Your task to perform on an android device: Go to accessibility settings Image 0: 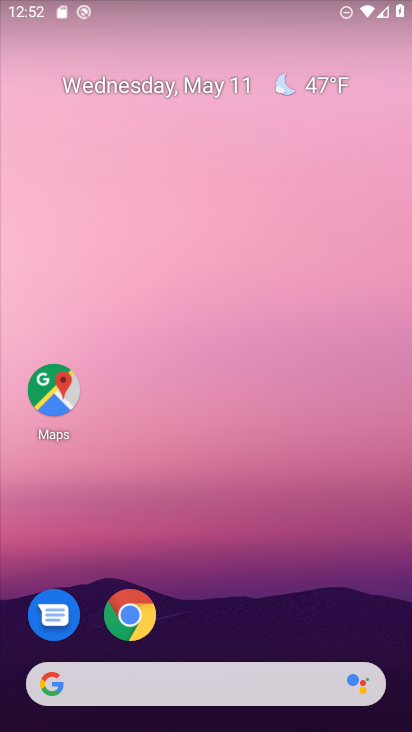
Step 0: drag from (294, 566) to (401, 92)
Your task to perform on an android device: Go to accessibility settings Image 1: 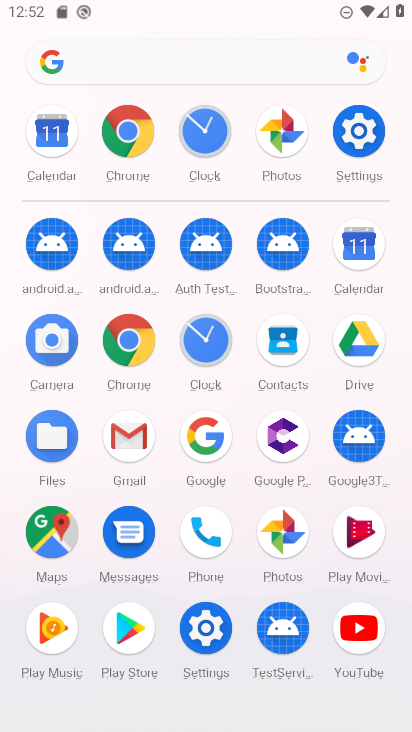
Step 1: click (369, 130)
Your task to perform on an android device: Go to accessibility settings Image 2: 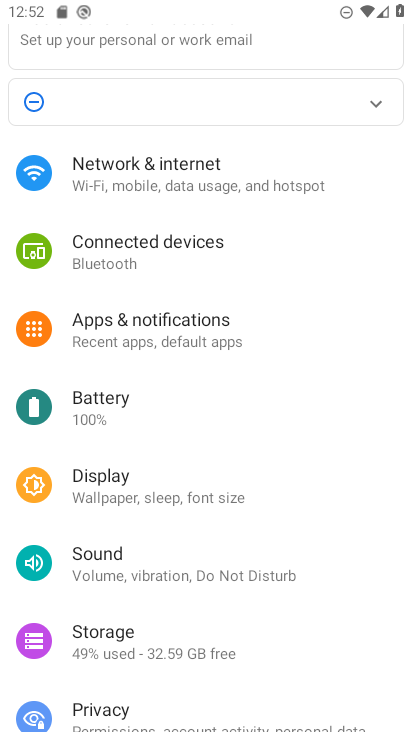
Step 2: drag from (175, 611) to (145, 237)
Your task to perform on an android device: Go to accessibility settings Image 3: 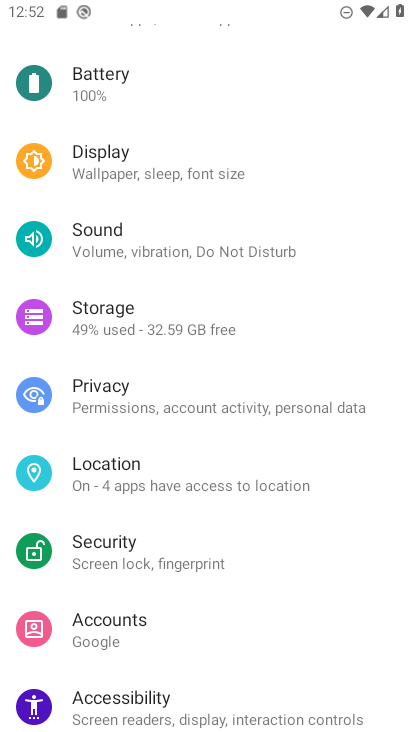
Step 3: drag from (110, 626) to (102, 174)
Your task to perform on an android device: Go to accessibility settings Image 4: 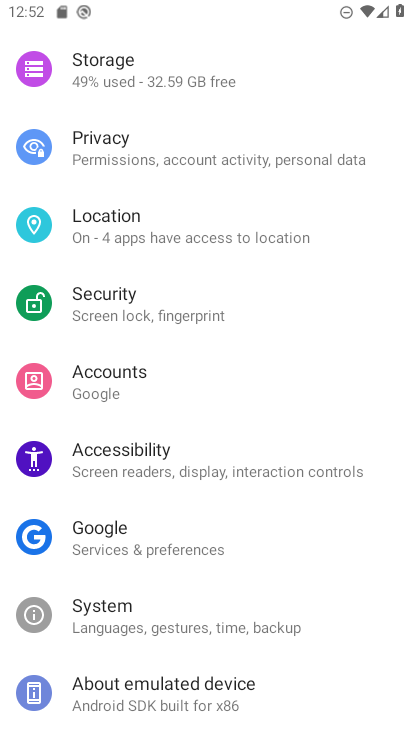
Step 4: click (112, 455)
Your task to perform on an android device: Go to accessibility settings Image 5: 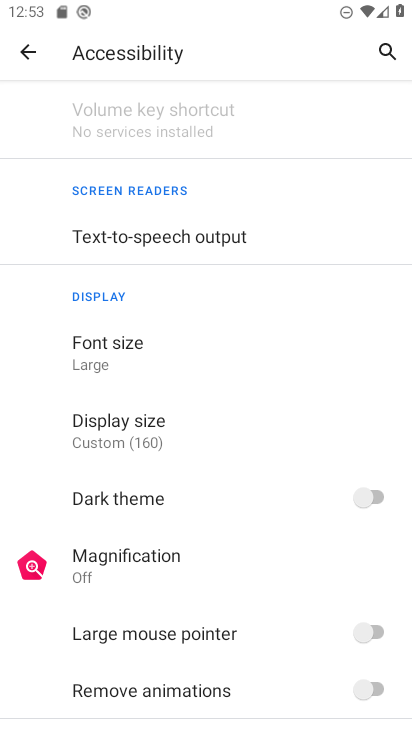
Step 5: task complete